Your task to perform on an android device: open app "ColorNote Notepad Notes" (install if not already installed) and enter user name: "unbridled@gmail.com" and password: "regularly" Image 0: 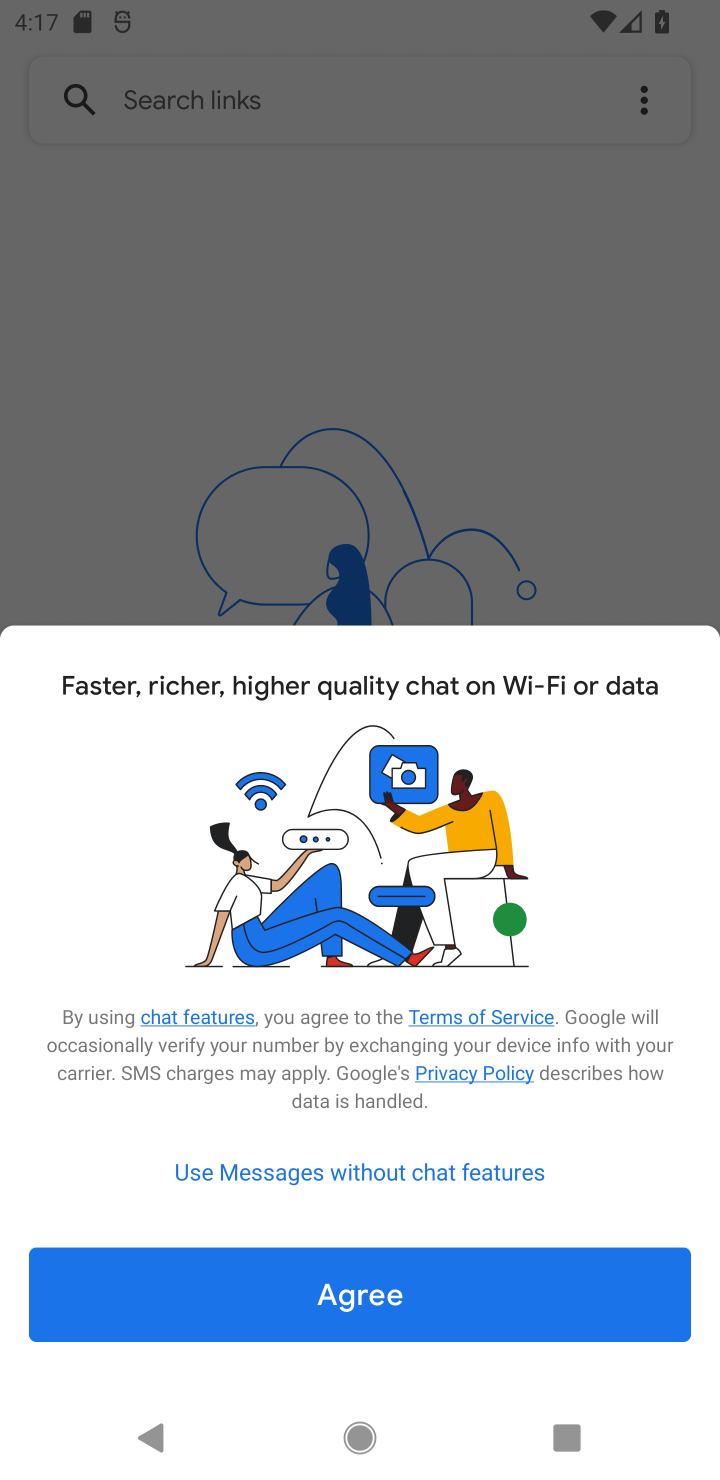
Step 0: press home button
Your task to perform on an android device: open app "ColorNote Notepad Notes" (install if not already installed) and enter user name: "unbridled@gmail.com" and password: "regularly" Image 1: 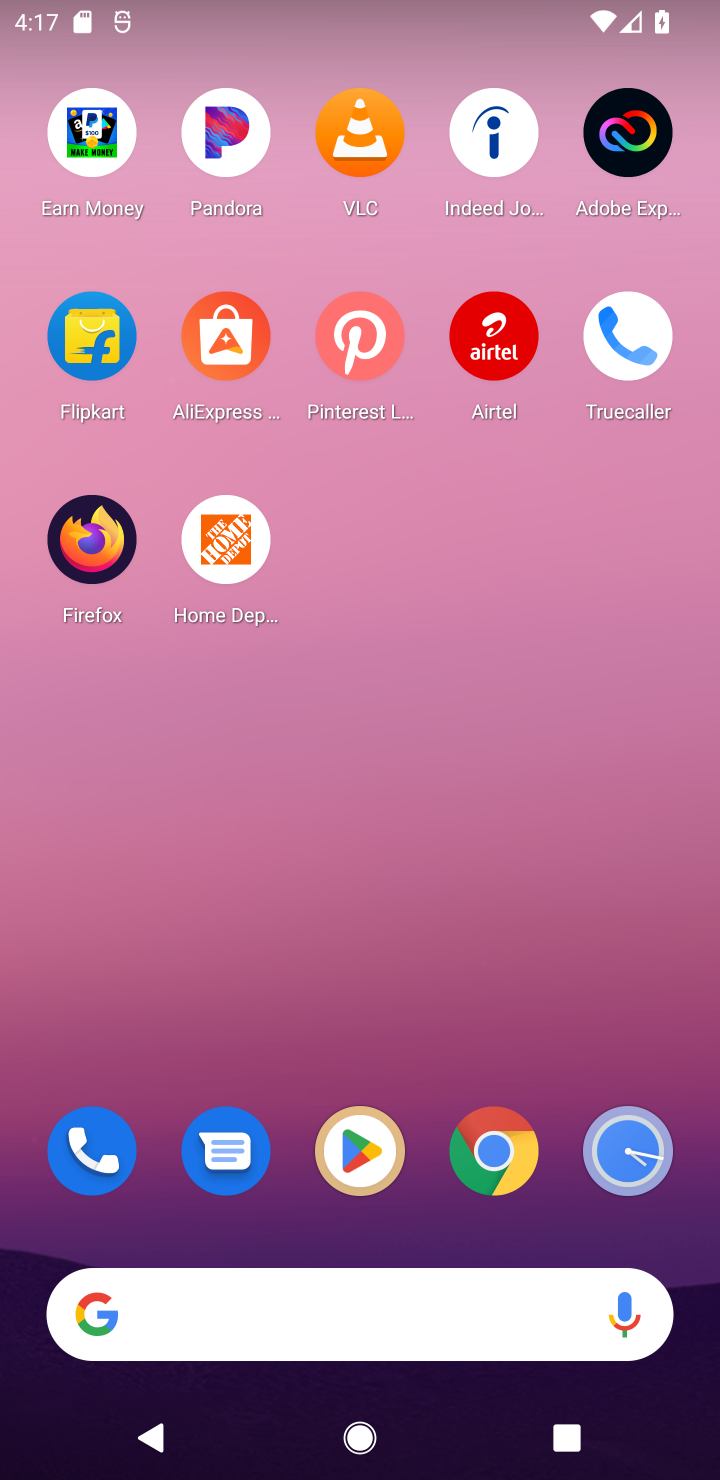
Step 1: click (350, 1185)
Your task to perform on an android device: open app "ColorNote Notepad Notes" (install if not already installed) and enter user name: "unbridled@gmail.com" and password: "regularly" Image 2: 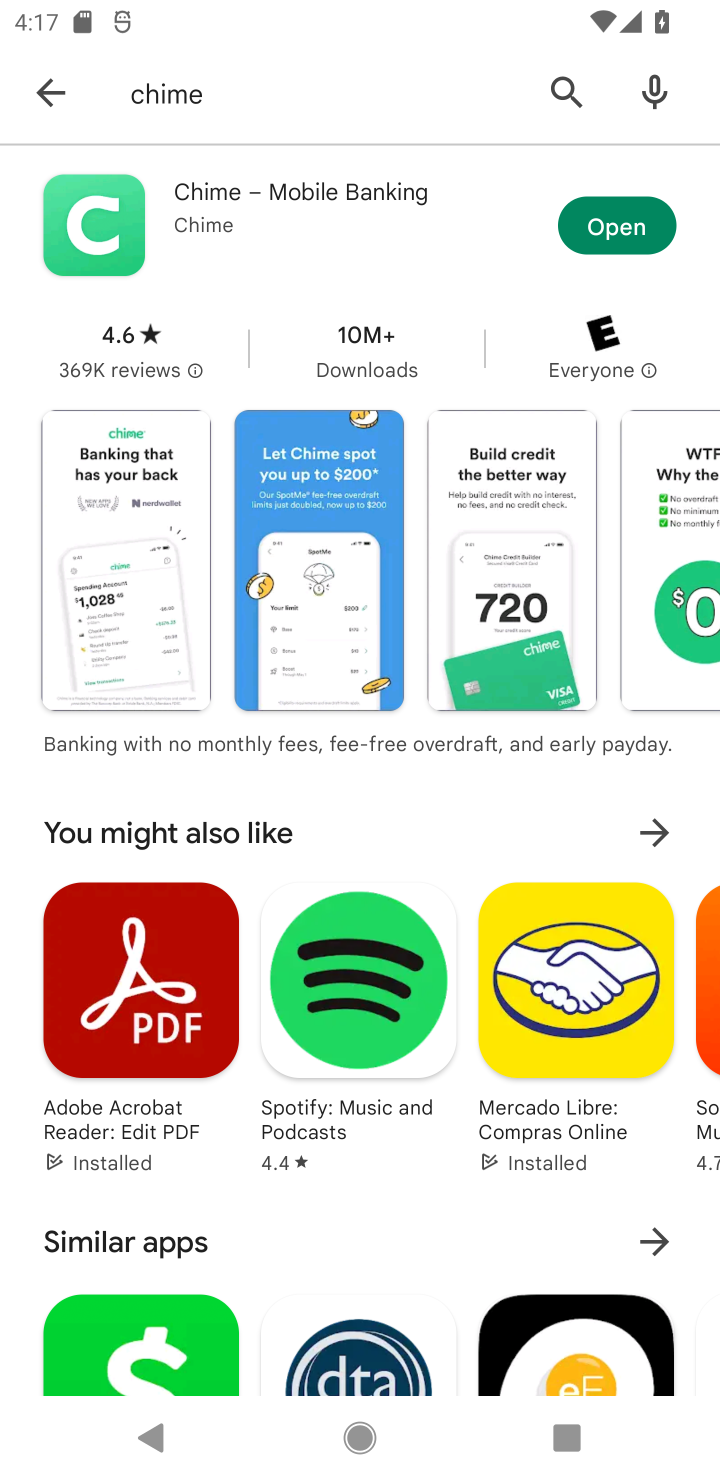
Step 2: click (545, 105)
Your task to perform on an android device: open app "ColorNote Notepad Notes" (install if not already installed) and enter user name: "unbridled@gmail.com" and password: "regularly" Image 3: 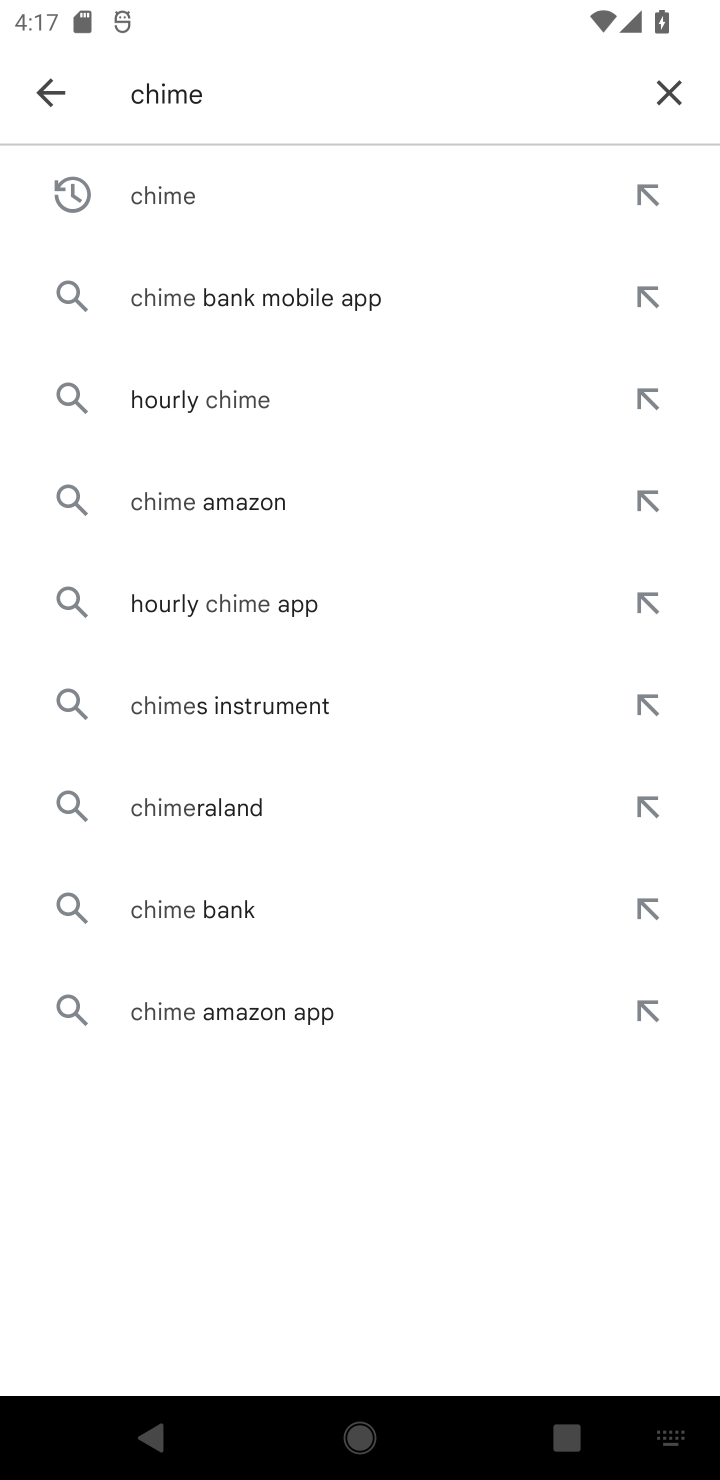
Step 3: click (655, 87)
Your task to perform on an android device: open app "ColorNote Notepad Notes" (install if not already installed) and enter user name: "unbridled@gmail.com" and password: "regularly" Image 4: 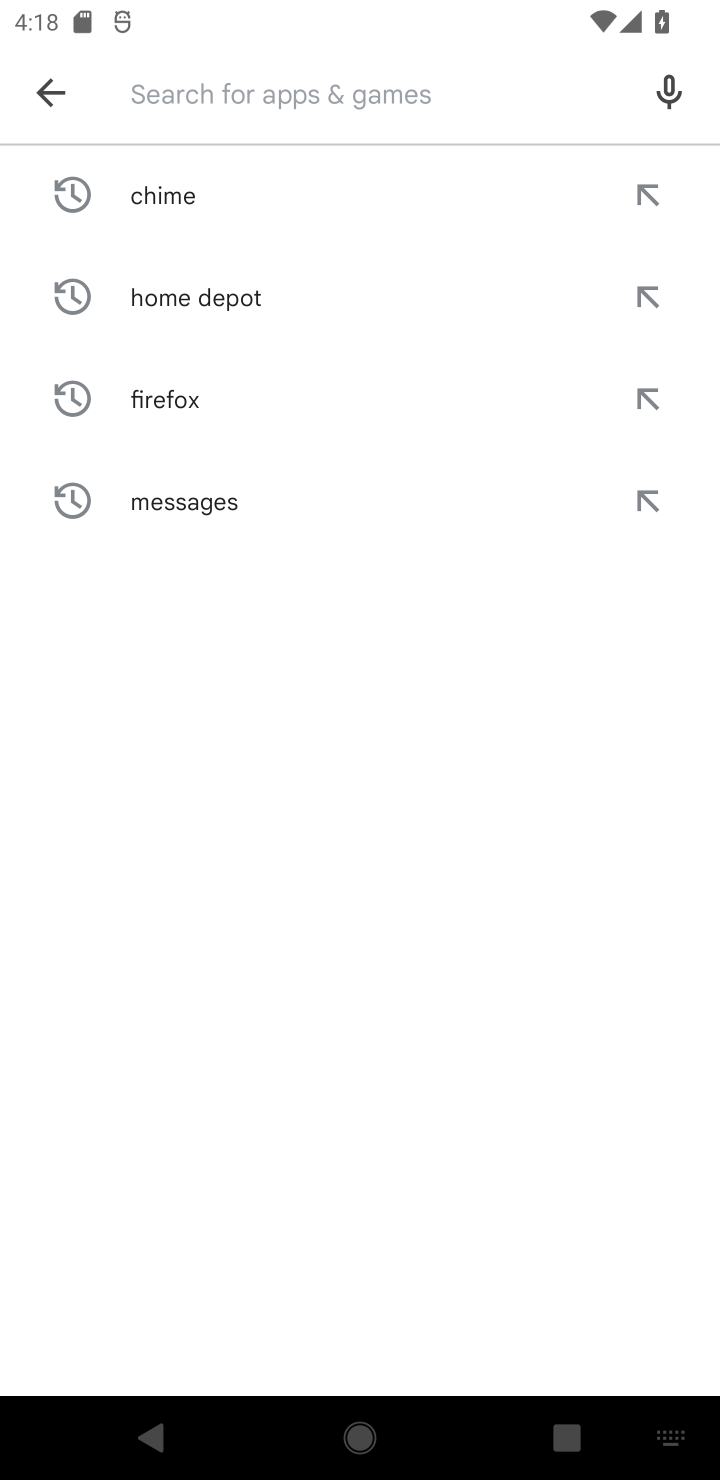
Step 4: type "color notepadd"
Your task to perform on an android device: open app "ColorNote Notepad Notes" (install if not already installed) and enter user name: "unbridled@gmail.com" and password: "regularly" Image 5: 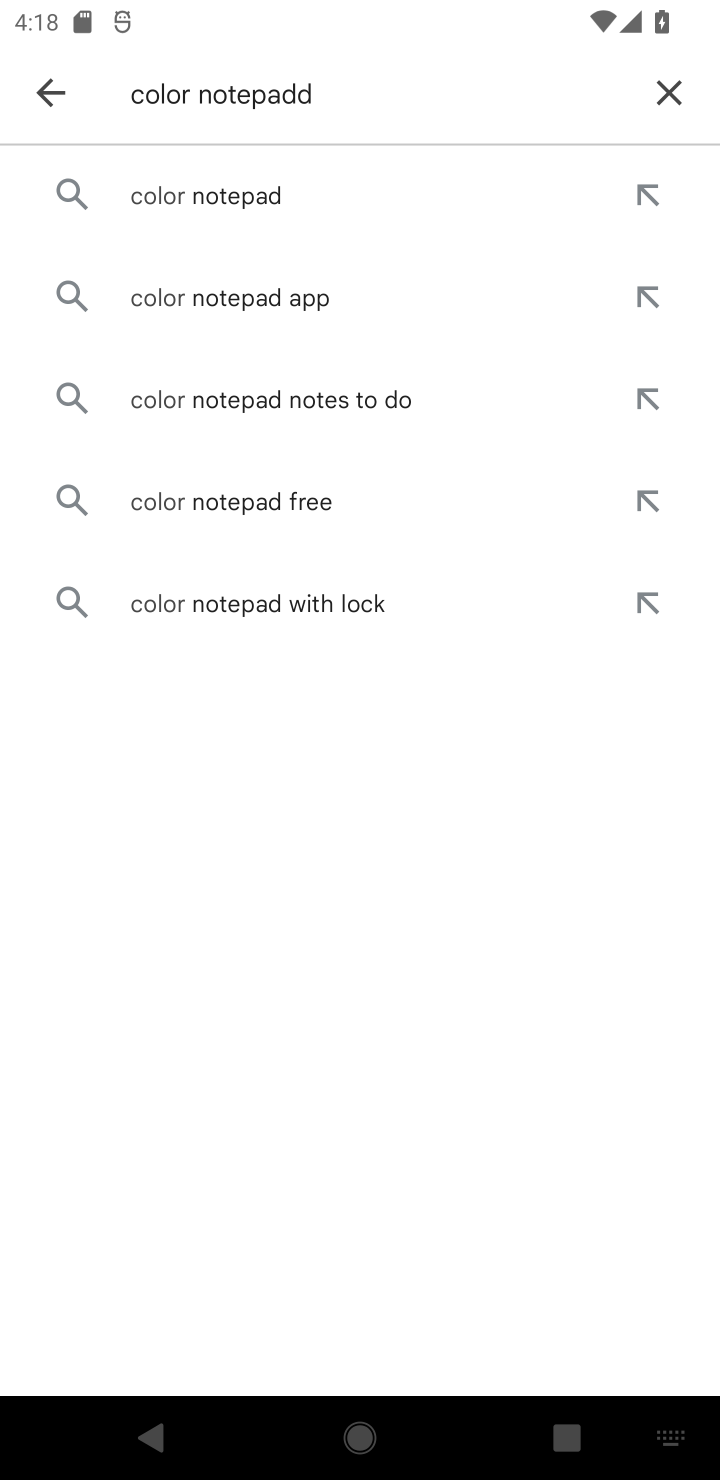
Step 5: click (146, 206)
Your task to perform on an android device: open app "ColorNote Notepad Notes" (install if not already installed) and enter user name: "unbridled@gmail.com" and password: "regularly" Image 6: 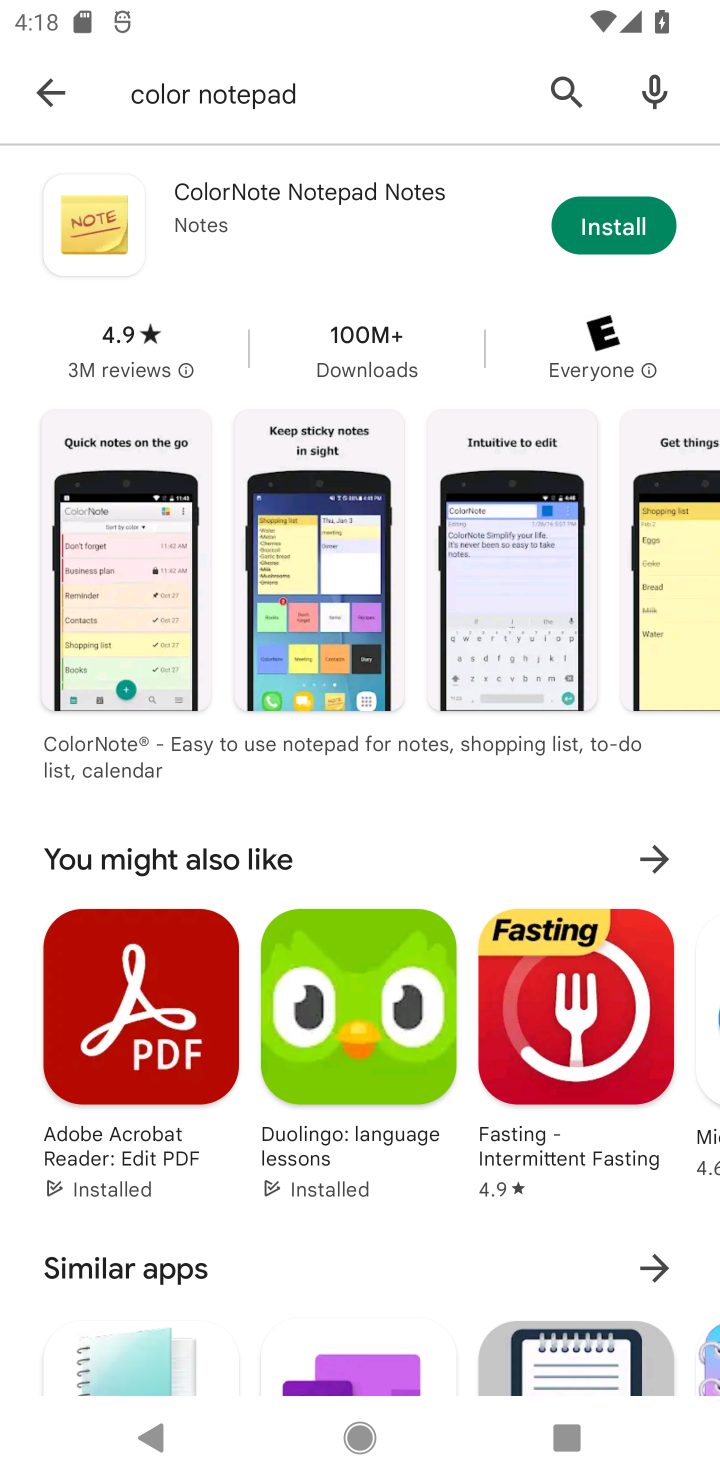
Step 6: click (635, 235)
Your task to perform on an android device: open app "ColorNote Notepad Notes" (install if not already installed) and enter user name: "unbridled@gmail.com" and password: "regularly" Image 7: 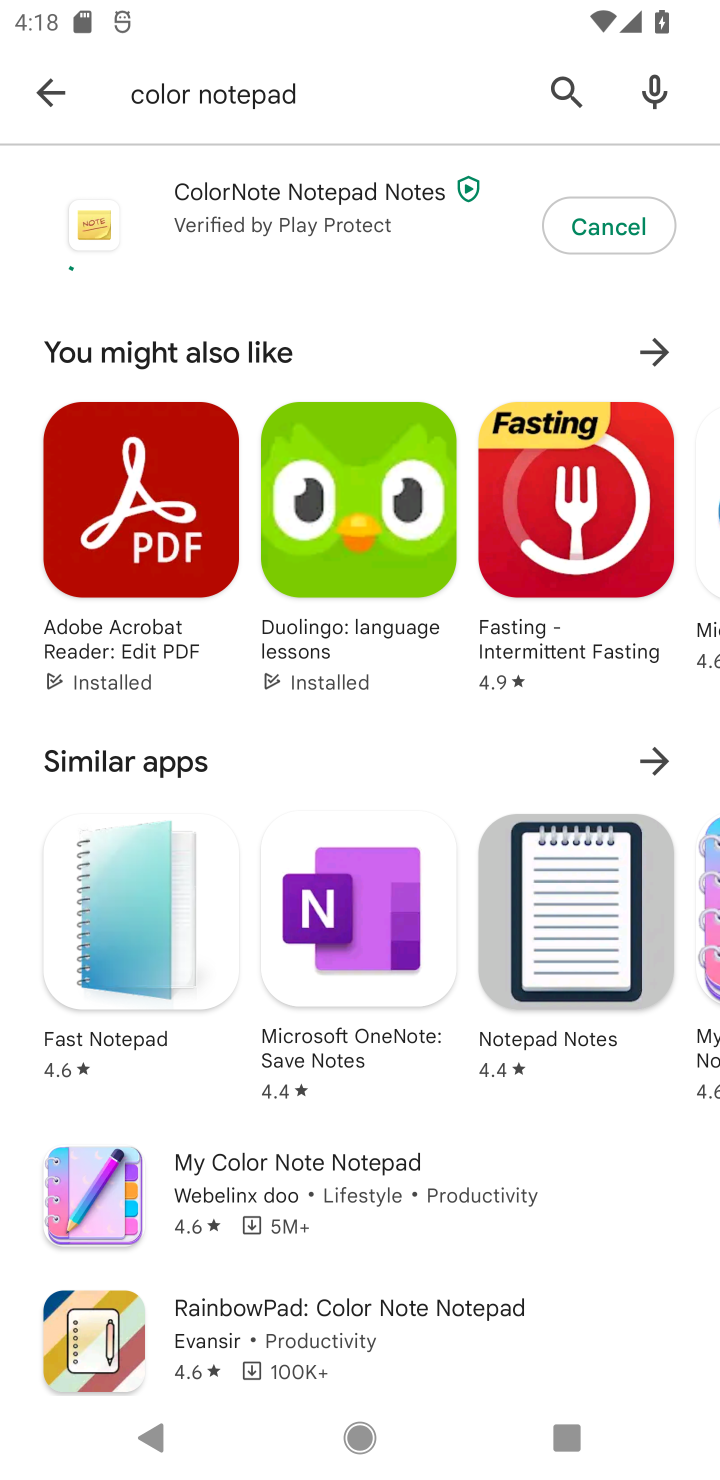
Step 7: task complete